Your task to perform on an android device: add a contact in the contacts app Image 0: 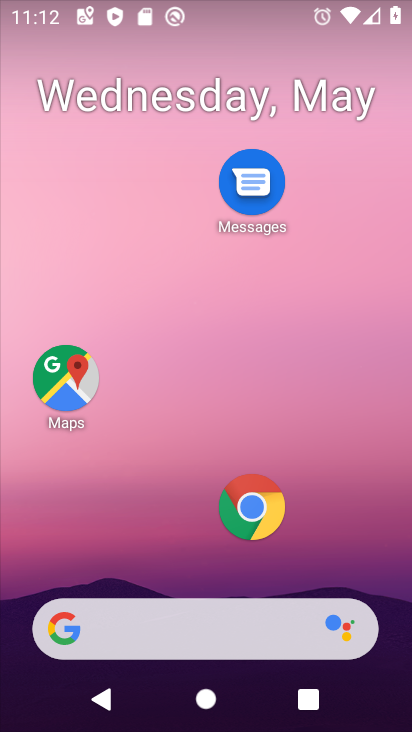
Step 0: drag from (190, 560) to (243, 102)
Your task to perform on an android device: add a contact in the contacts app Image 1: 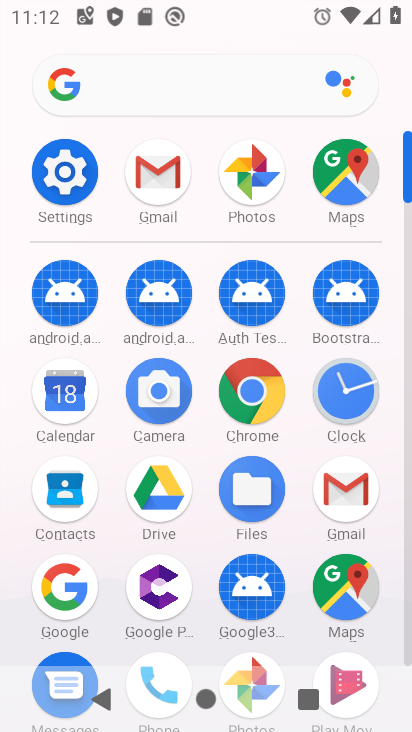
Step 1: click (63, 490)
Your task to perform on an android device: add a contact in the contacts app Image 2: 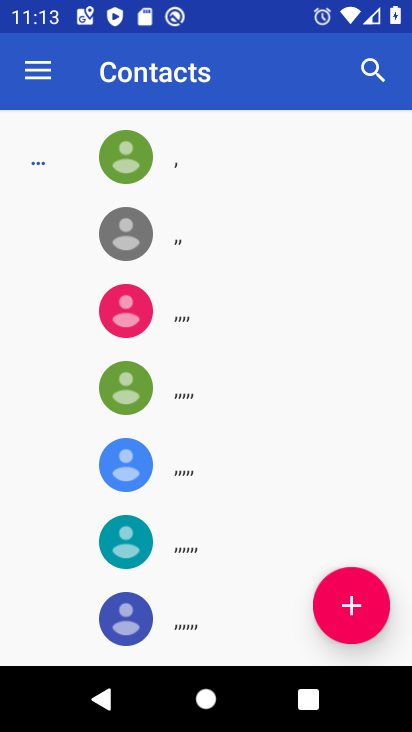
Step 2: click (349, 597)
Your task to perform on an android device: add a contact in the contacts app Image 3: 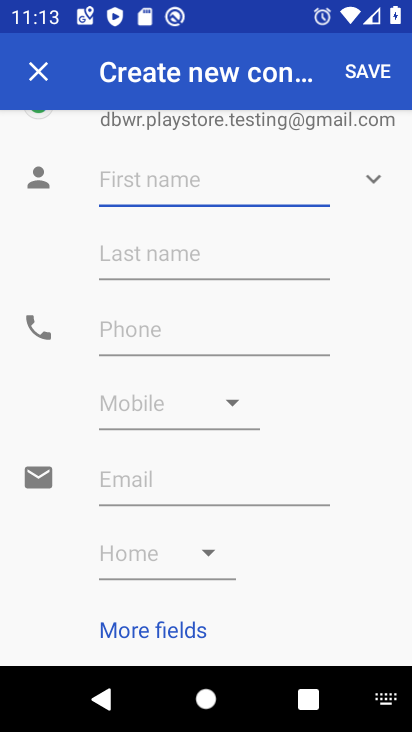
Step 3: type "fggbfgbf"
Your task to perform on an android device: add a contact in the contacts app Image 4: 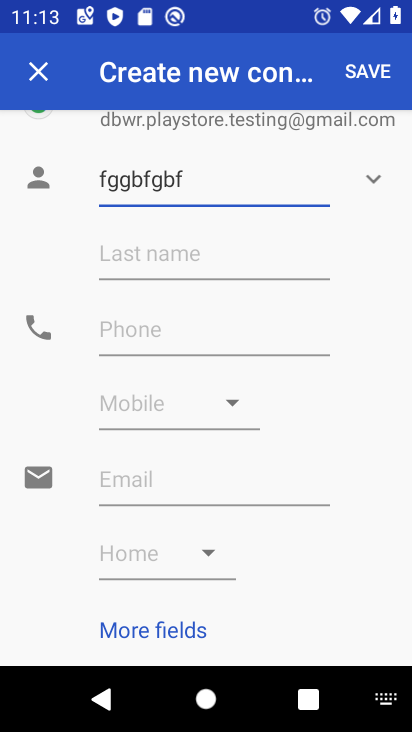
Step 4: click (371, 64)
Your task to perform on an android device: add a contact in the contacts app Image 5: 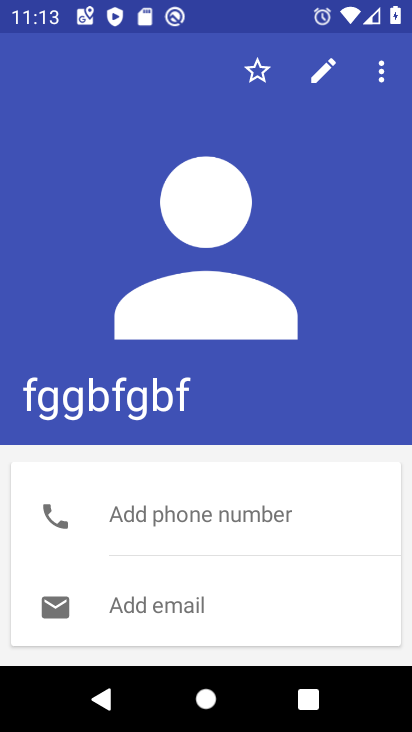
Step 5: task complete